Your task to perform on an android device: Find coffee shops on Maps Image 0: 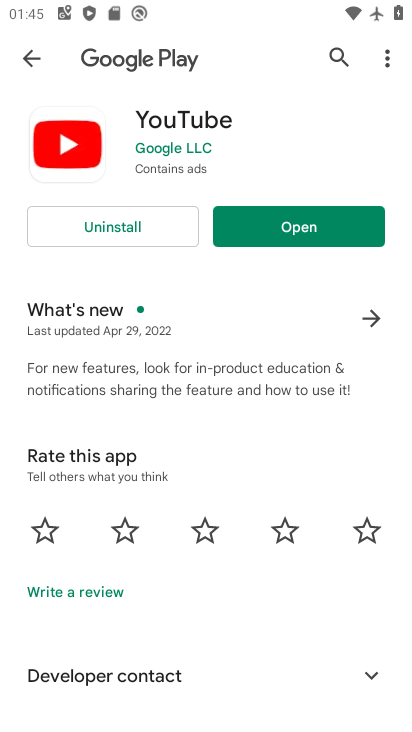
Step 0: press home button
Your task to perform on an android device: Find coffee shops on Maps Image 1: 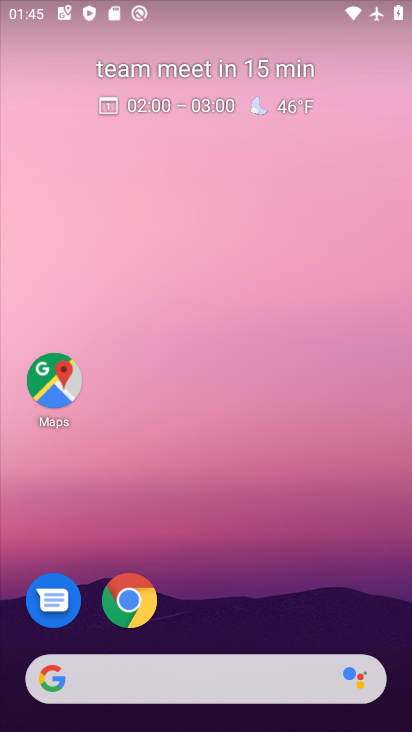
Step 1: click (48, 376)
Your task to perform on an android device: Find coffee shops on Maps Image 2: 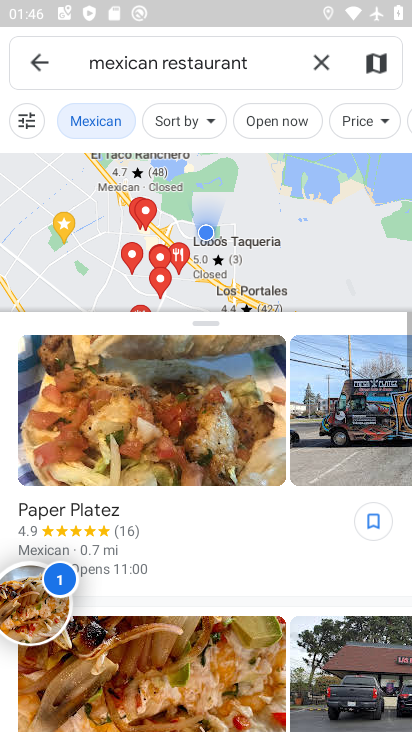
Step 2: click (324, 56)
Your task to perform on an android device: Find coffee shops on Maps Image 3: 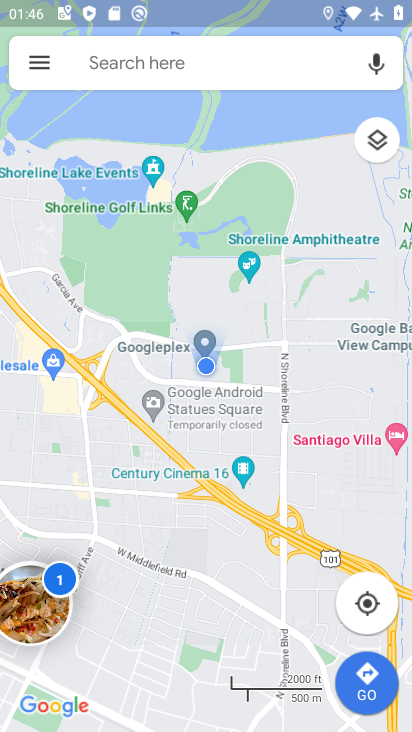
Step 3: click (203, 68)
Your task to perform on an android device: Find coffee shops on Maps Image 4: 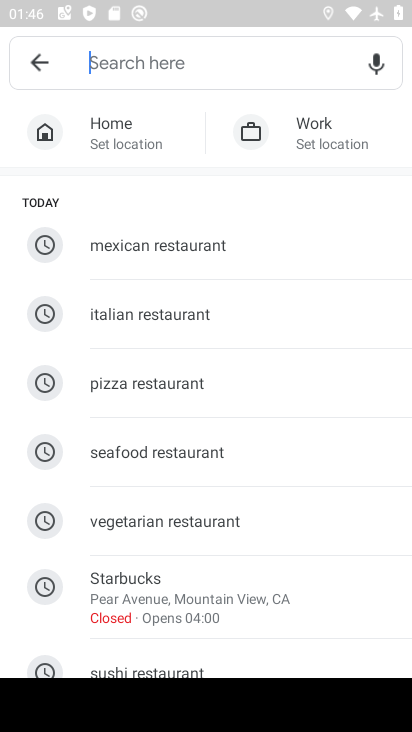
Step 4: type "coffee"
Your task to perform on an android device: Find coffee shops on Maps Image 5: 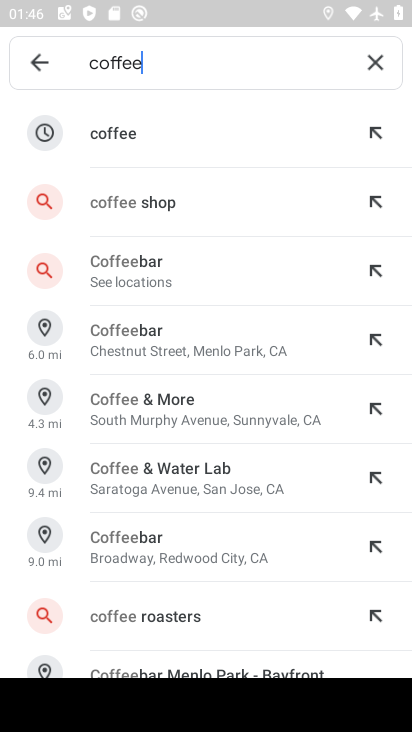
Step 5: click (135, 144)
Your task to perform on an android device: Find coffee shops on Maps Image 6: 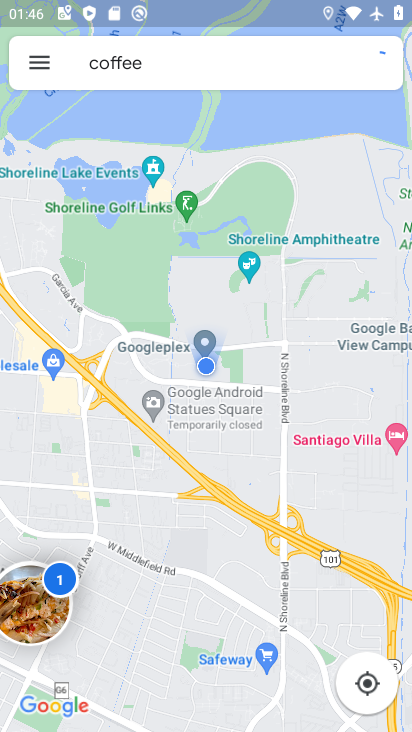
Step 6: task complete